Your task to perform on an android device: open app "Upside-Cash back on gas & food" Image 0: 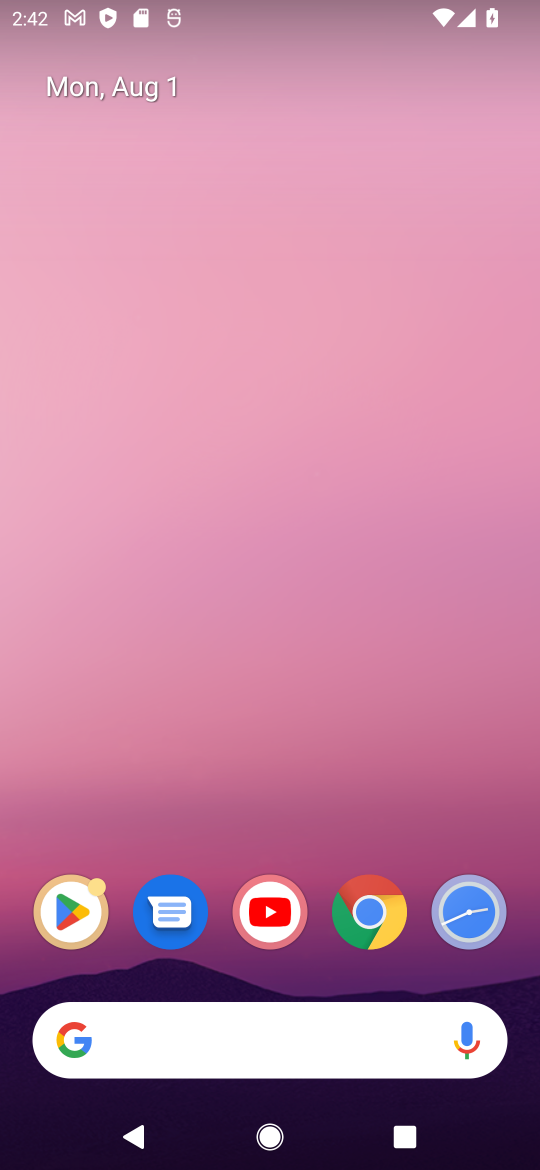
Step 0: click (85, 916)
Your task to perform on an android device: open app "Upside-Cash back on gas & food" Image 1: 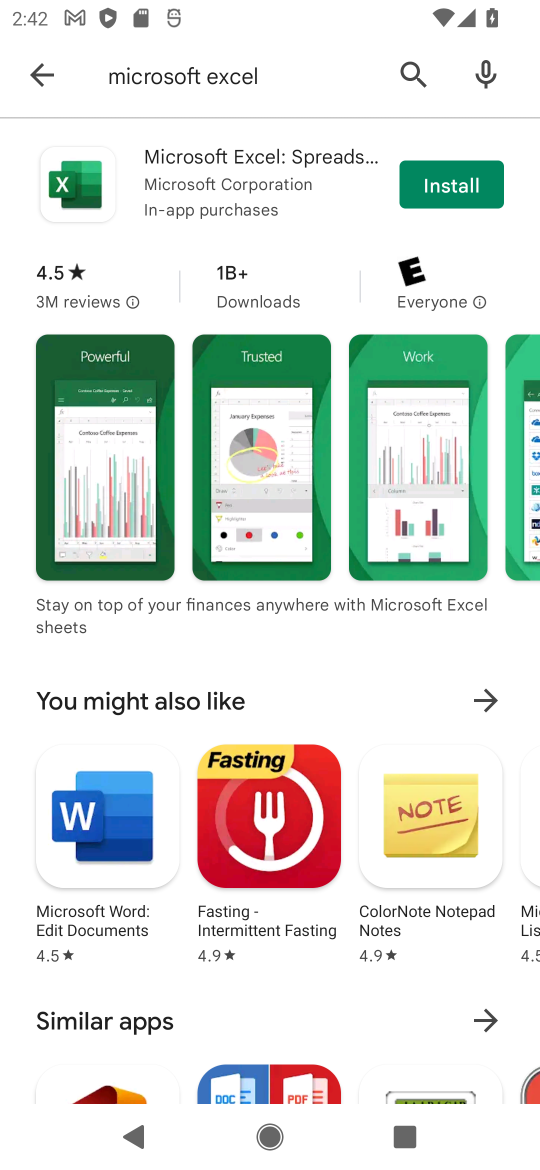
Step 1: click (412, 65)
Your task to perform on an android device: open app "Upside-Cash back on gas & food" Image 2: 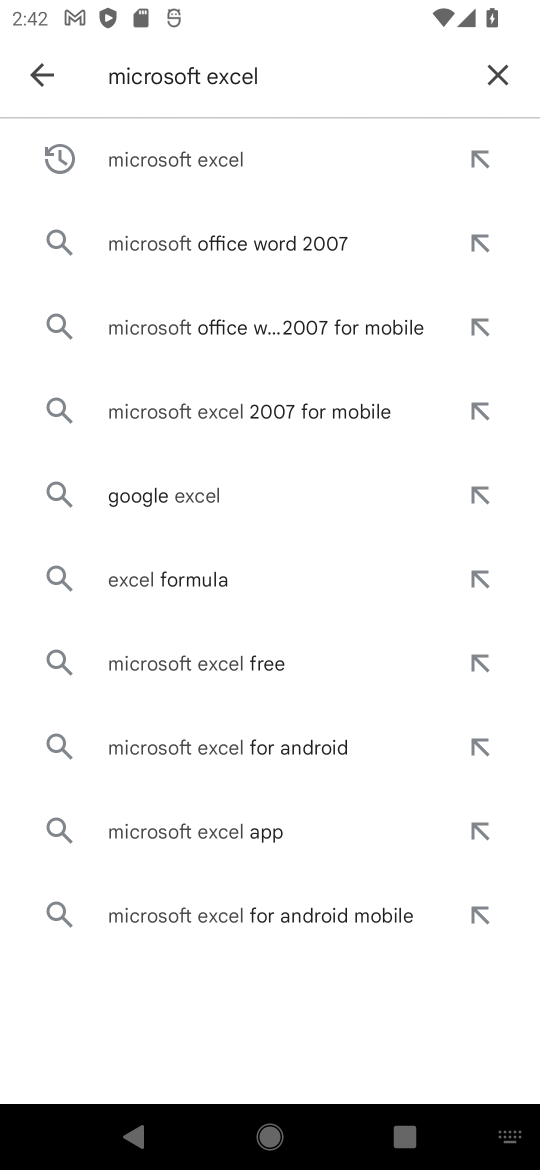
Step 2: click (482, 80)
Your task to perform on an android device: open app "Upside-Cash back on gas & food" Image 3: 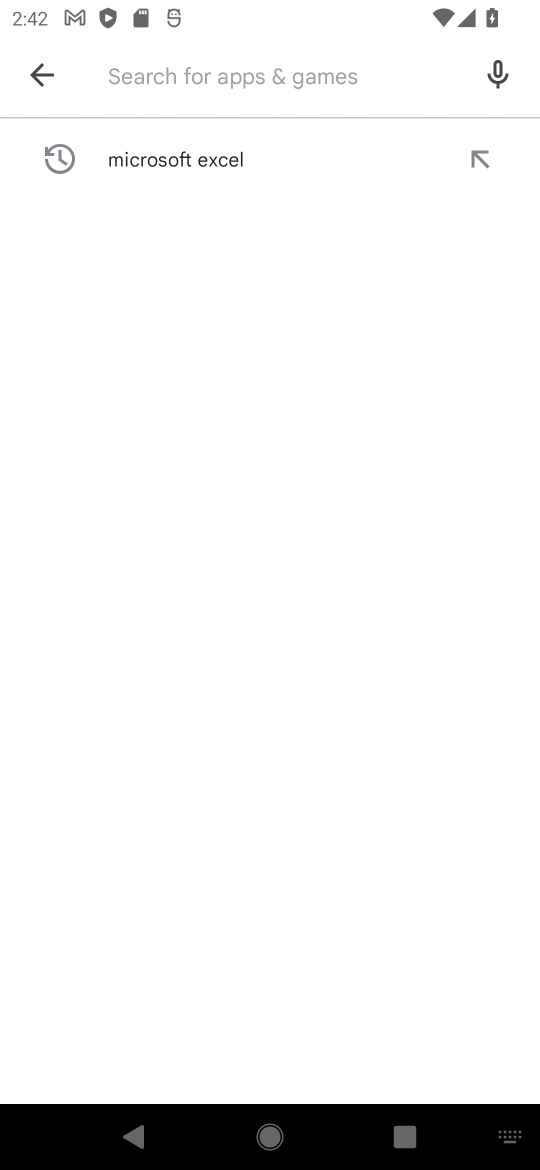
Step 3: type "Upside-Cash back on gas & food"
Your task to perform on an android device: open app "Upside-Cash back on gas & food" Image 4: 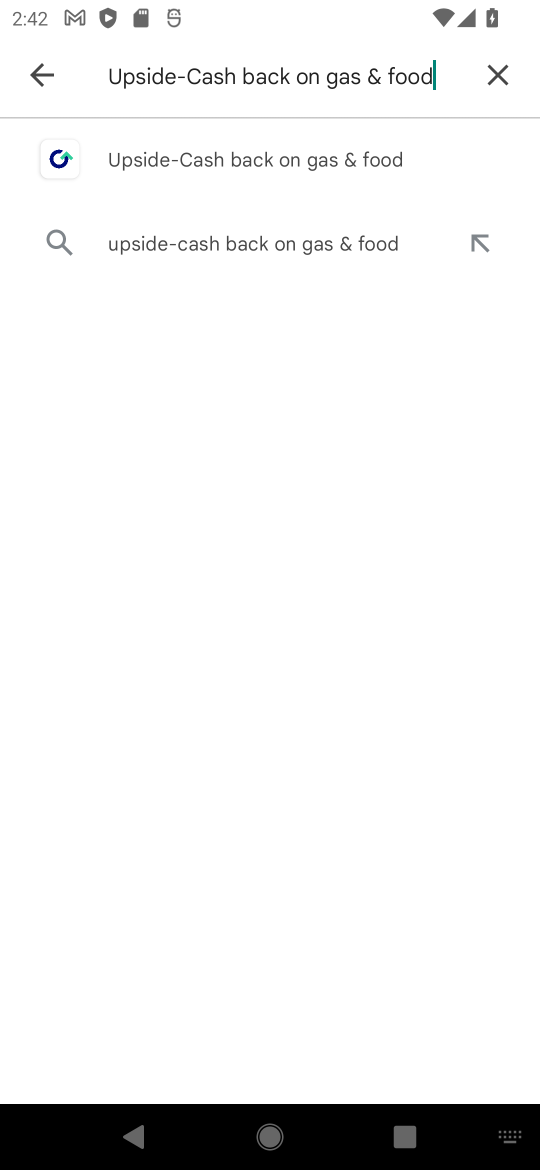
Step 4: click (202, 151)
Your task to perform on an android device: open app "Upside-Cash back on gas & food" Image 5: 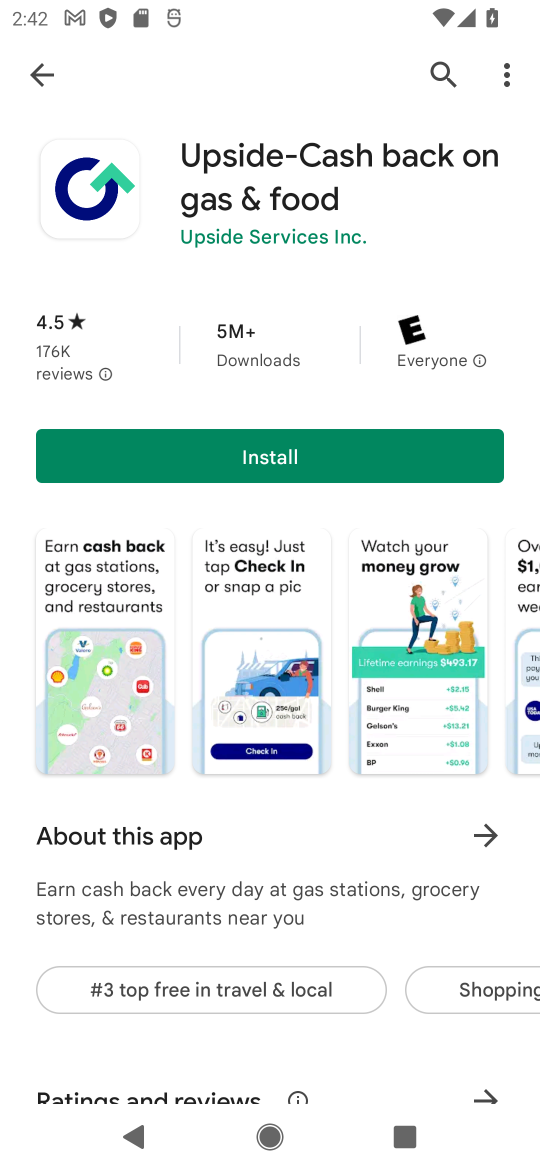
Step 5: task complete